Your task to perform on an android device: turn off location Image 0: 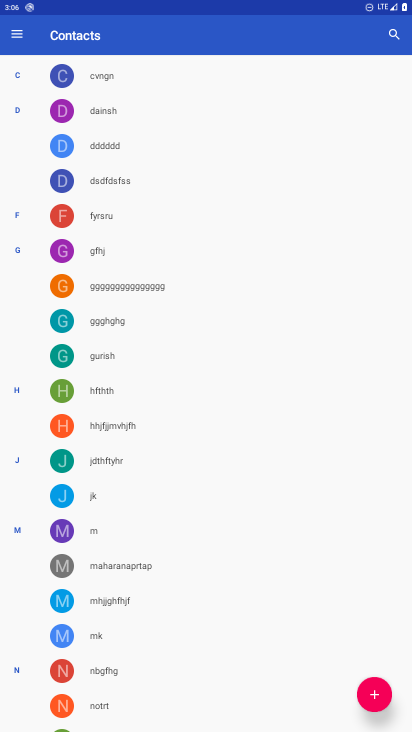
Step 0: drag from (163, 670) to (192, 477)
Your task to perform on an android device: turn off location Image 1: 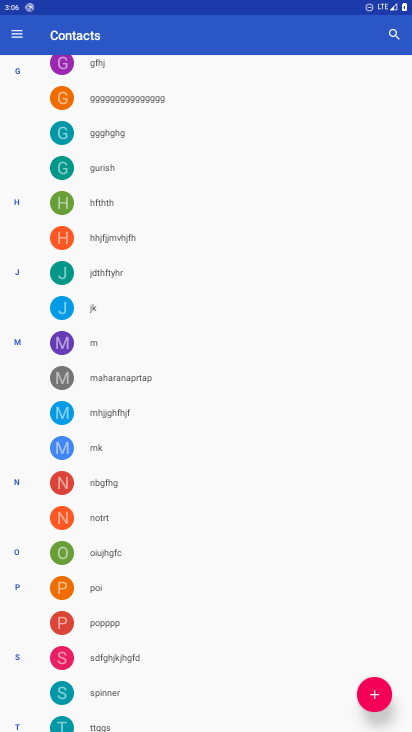
Step 1: drag from (193, 724) to (208, 641)
Your task to perform on an android device: turn off location Image 2: 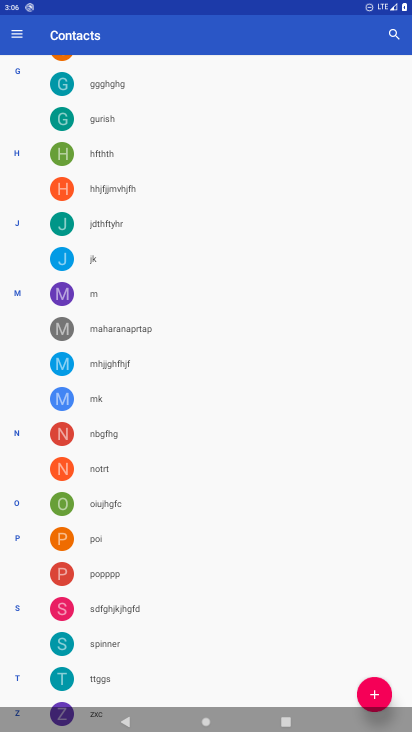
Step 2: click (209, 722)
Your task to perform on an android device: turn off location Image 3: 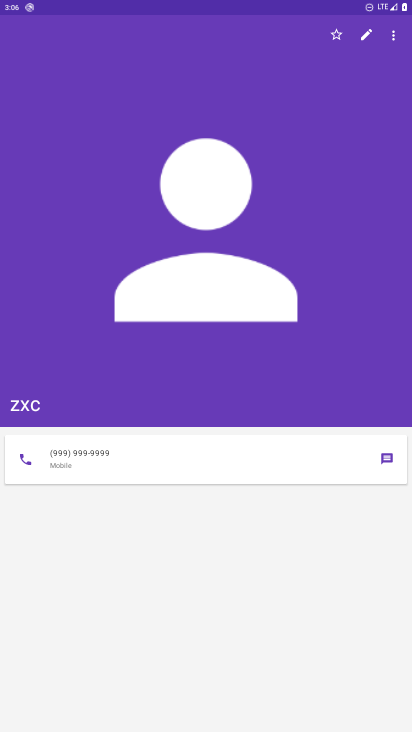
Step 3: drag from (190, 720) to (228, 470)
Your task to perform on an android device: turn off location Image 4: 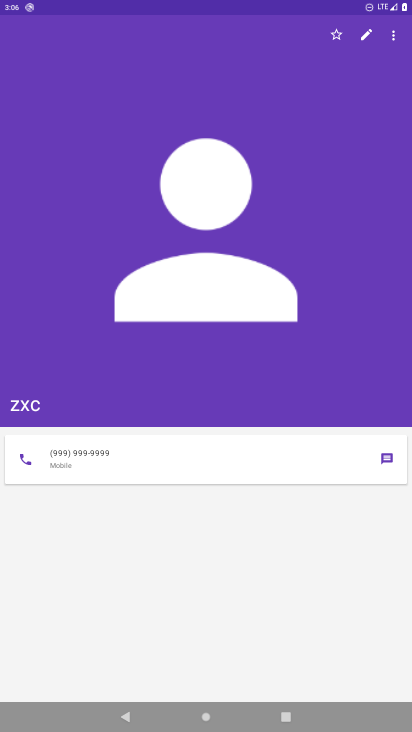
Step 4: click (208, 718)
Your task to perform on an android device: turn off location Image 5: 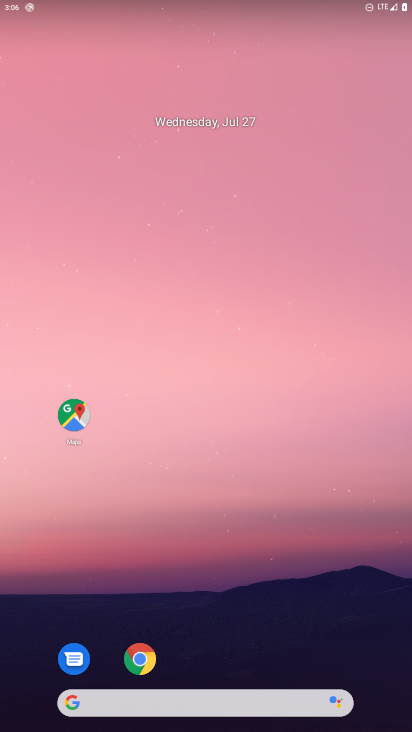
Step 5: drag from (193, 657) to (220, 418)
Your task to perform on an android device: turn off location Image 6: 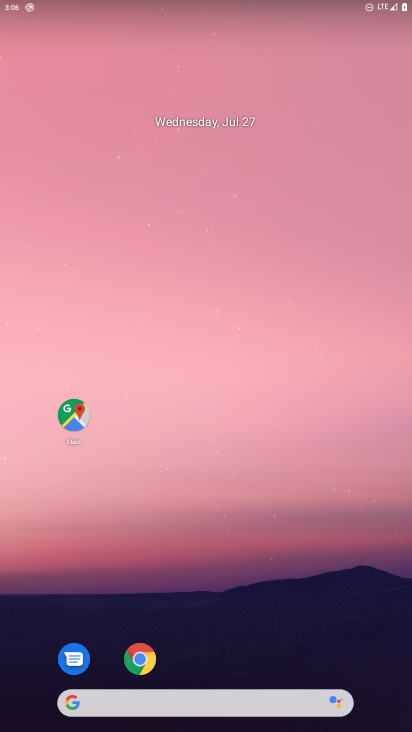
Step 6: drag from (232, 663) to (233, 265)
Your task to perform on an android device: turn off location Image 7: 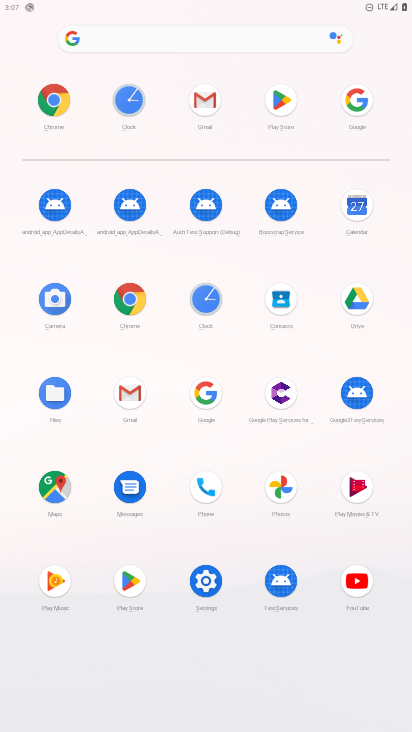
Step 7: click (212, 584)
Your task to perform on an android device: turn off location Image 8: 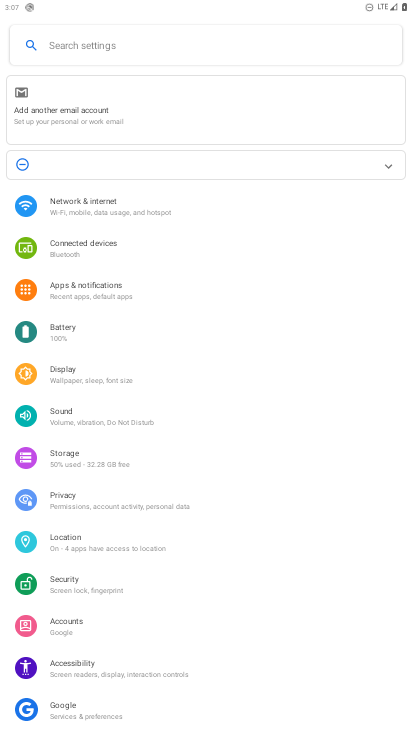
Step 8: click (117, 539)
Your task to perform on an android device: turn off location Image 9: 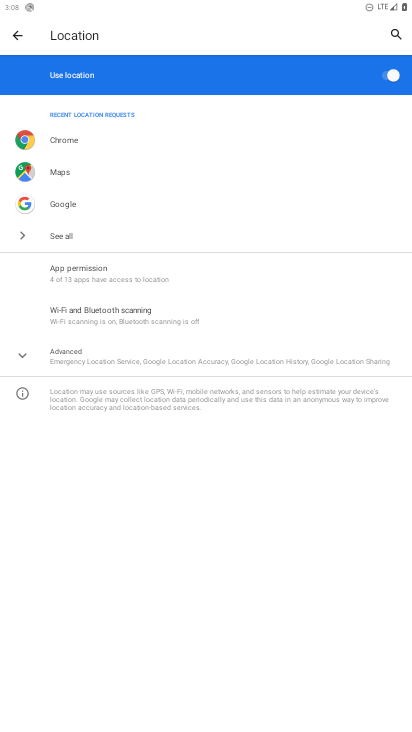
Step 9: drag from (266, 426) to (287, 281)
Your task to perform on an android device: turn off location Image 10: 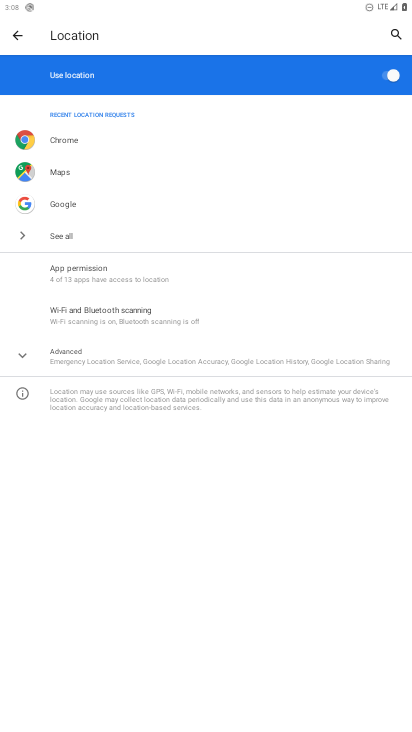
Step 10: click (215, 356)
Your task to perform on an android device: turn off location Image 11: 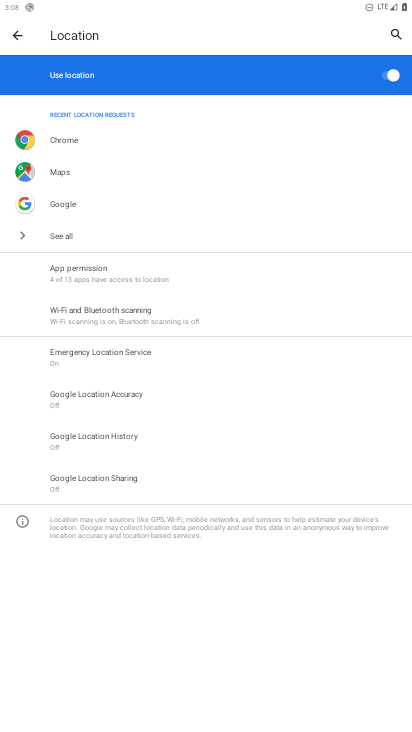
Step 11: click (34, 235)
Your task to perform on an android device: turn off location Image 12: 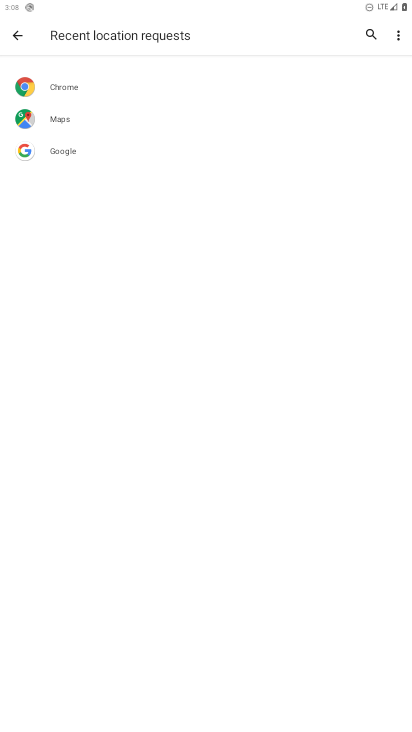
Step 12: click (16, 28)
Your task to perform on an android device: turn off location Image 13: 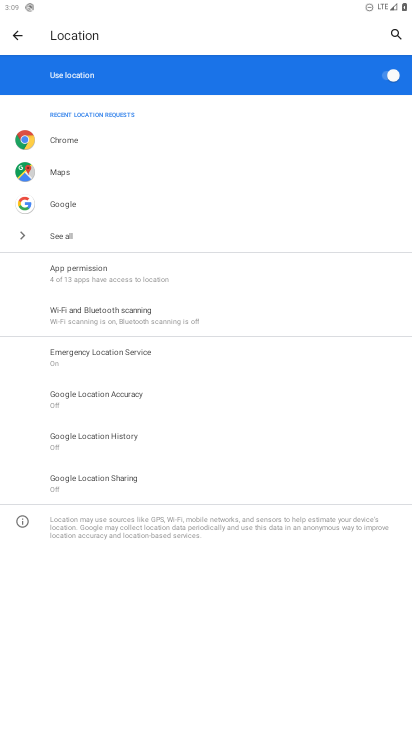
Step 13: click (69, 282)
Your task to perform on an android device: turn off location Image 14: 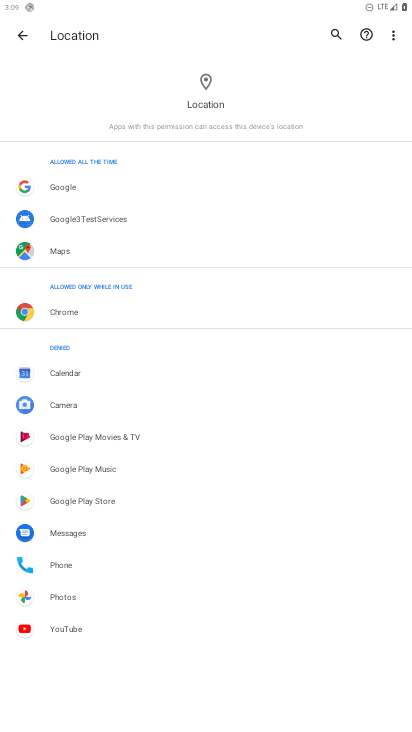
Step 14: click (24, 31)
Your task to perform on an android device: turn off location Image 15: 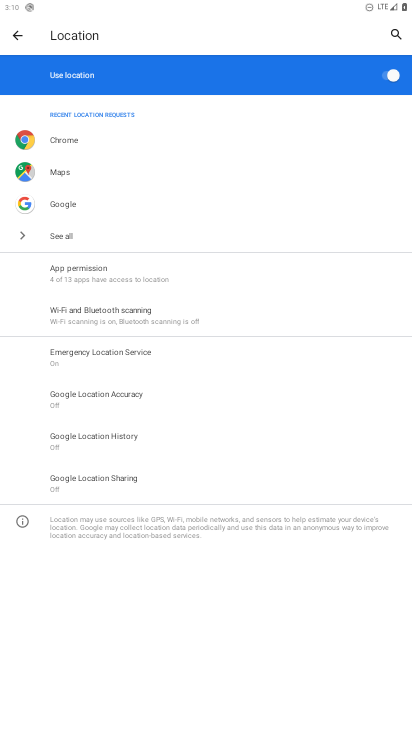
Step 15: task complete